Your task to perform on an android device: toggle translation in the chrome app Image 0: 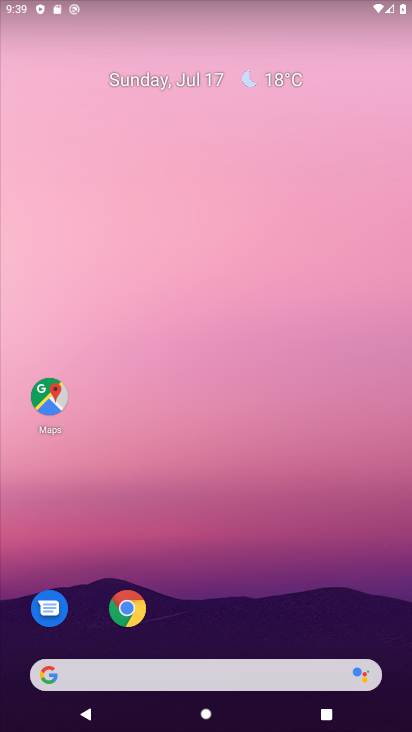
Step 0: click (127, 605)
Your task to perform on an android device: toggle translation in the chrome app Image 1: 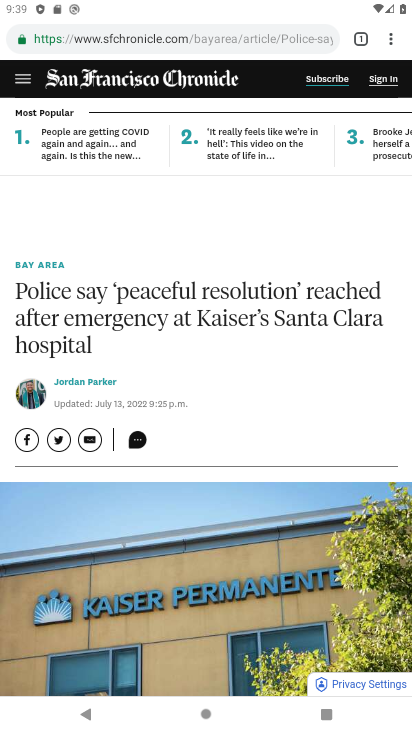
Step 1: click (364, 38)
Your task to perform on an android device: toggle translation in the chrome app Image 2: 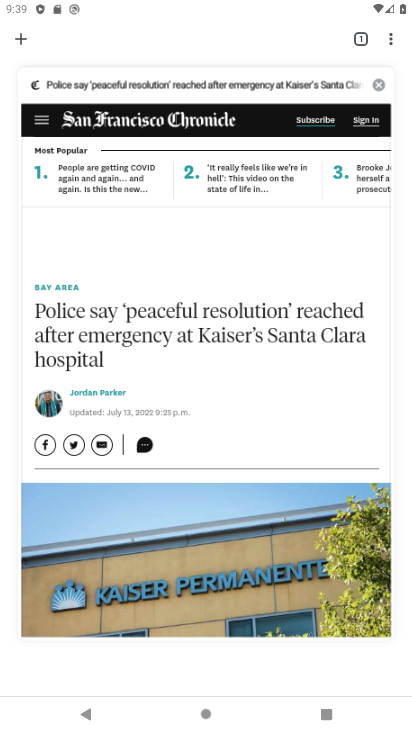
Step 2: click (380, 81)
Your task to perform on an android device: toggle translation in the chrome app Image 3: 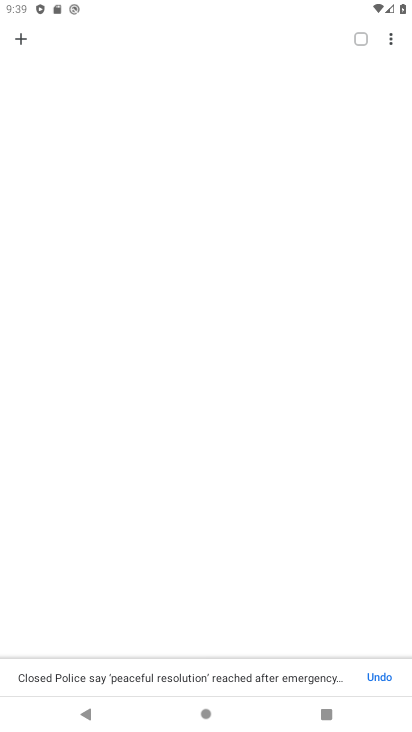
Step 3: click (21, 35)
Your task to perform on an android device: toggle translation in the chrome app Image 4: 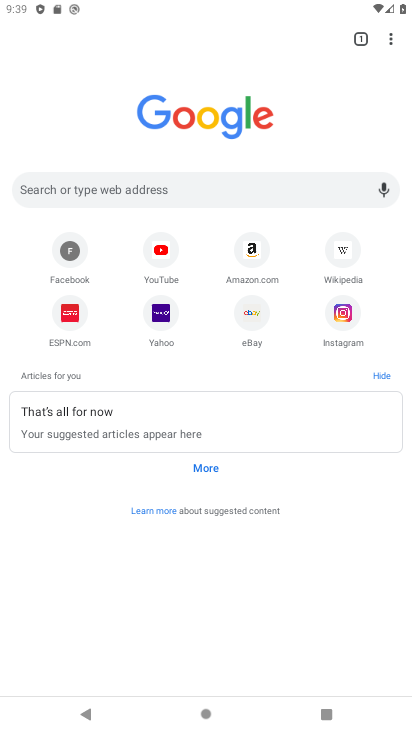
Step 4: click (128, 188)
Your task to perform on an android device: toggle translation in the chrome app Image 5: 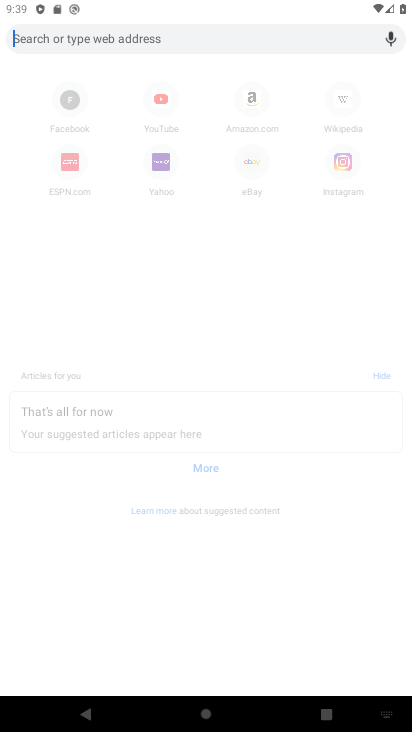
Step 5: type "toggle translation"
Your task to perform on an android device: toggle translation in the chrome app Image 6: 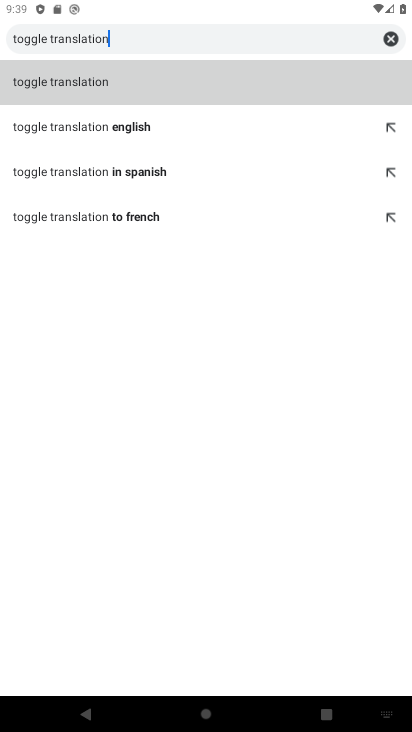
Step 6: press enter
Your task to perform on an android device: toggle translation in the chrome app Image 7: 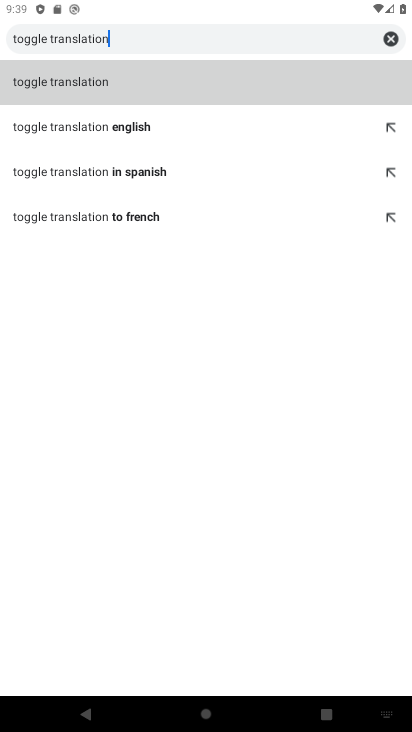
Step 7: type ""
Your task to perform on an android device: toggle translation in the chrome app Image 8: 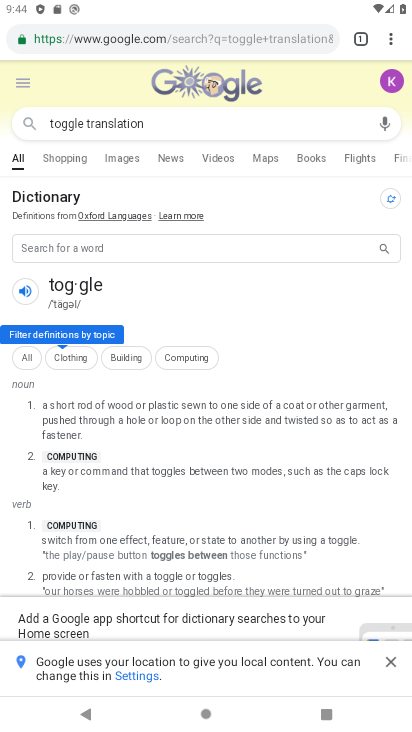
Step 8: task complete